Your task to perform on an android device: change the clock style Image 0: 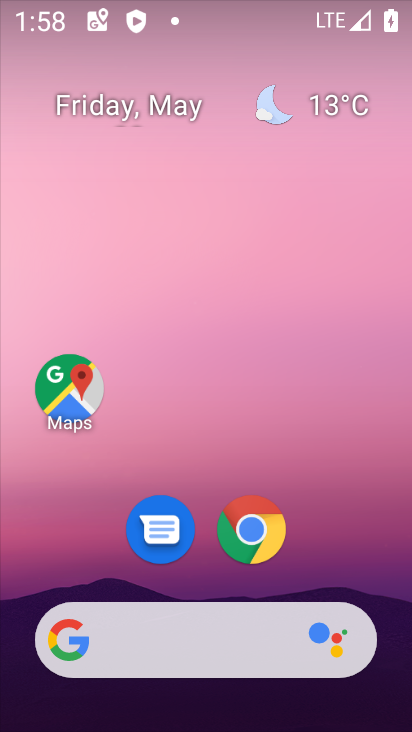
Step 0: drag from (351, 518) to (290, 170)
Your task to perform on an android device: change the clock style Image 1: 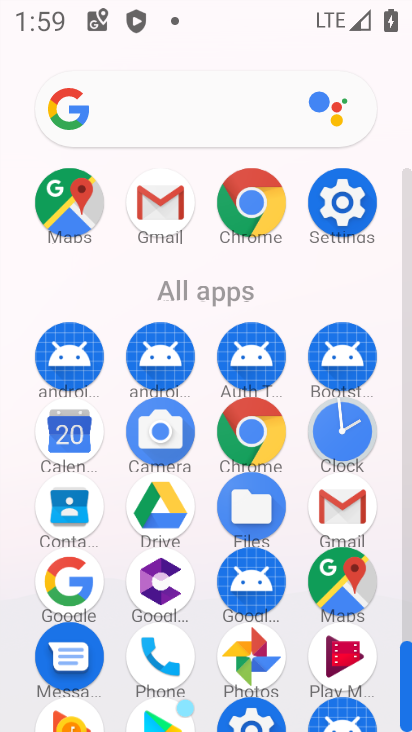
Step 1: click (339, 442)
Your task to perform on an android device: change the clock style Image 2: 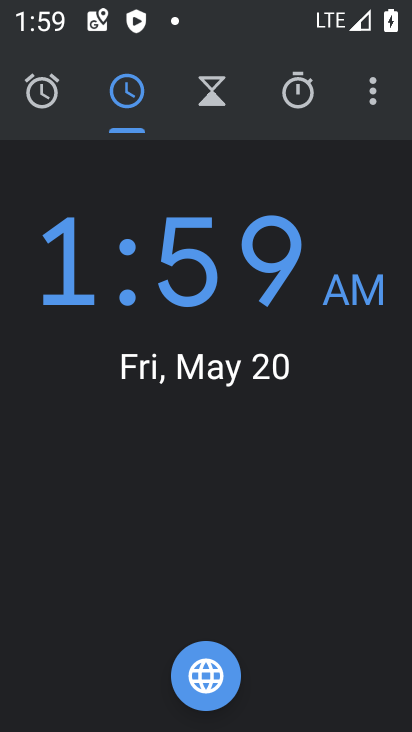
Step 2: click (372, 108)
Your task to perform on an android device: change the clock style Image 3: 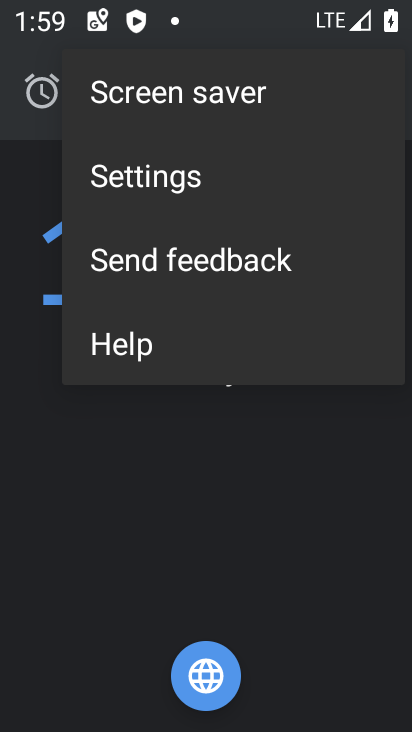
Step 3: click (287, 144)
Your task to perform on an android device: change the clock style Image 4: 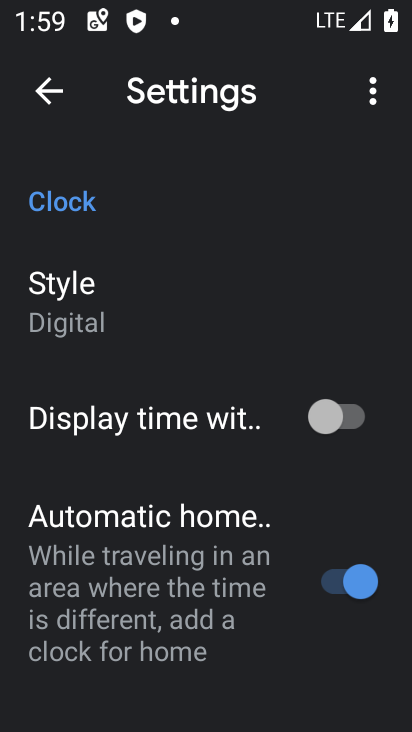
Step 4: click (158, 285)
Your task to perform on an android device: change the clock style Image 5: 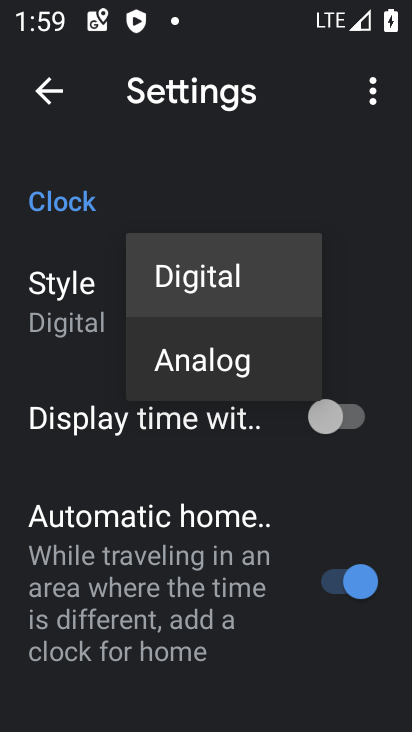
Step 5: click (165, 372)
Your task to perform on an android device: change the clock style Image 6: 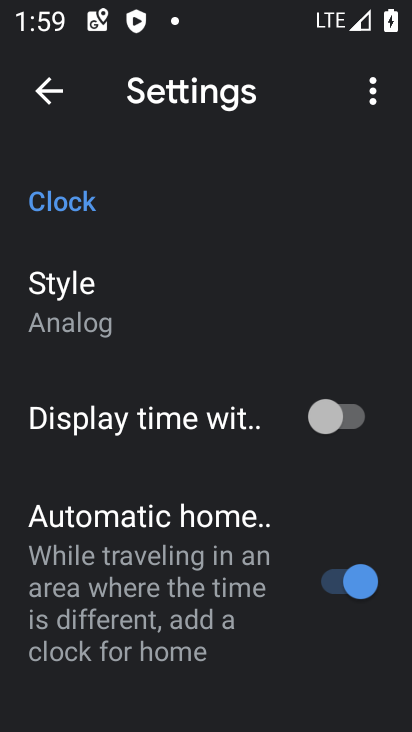
Step 6: task complete